Your task to perform on an android device: Add razer huntsman to the cart on ebay.com Image 0: 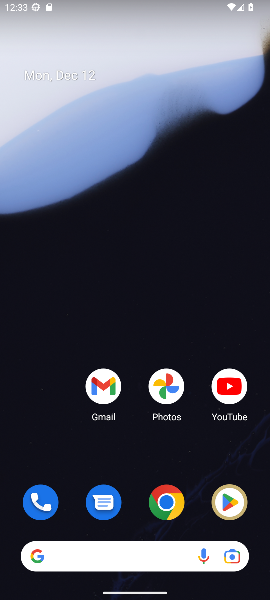
Step 0: click (166, 503)
Your task to perform on an android device: Add razer huntsman to the cart on ebay.com Image 1: 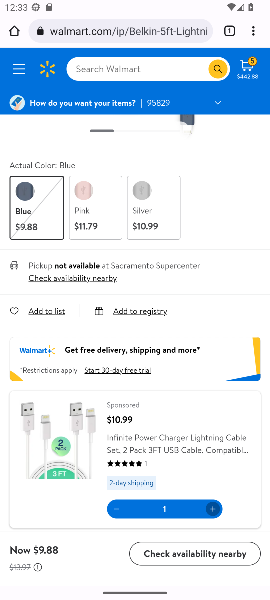
Step 1: click (150, 80)
Your task to perform on an android device: Add razer huntsman to the cart on ebay.com Image 2: 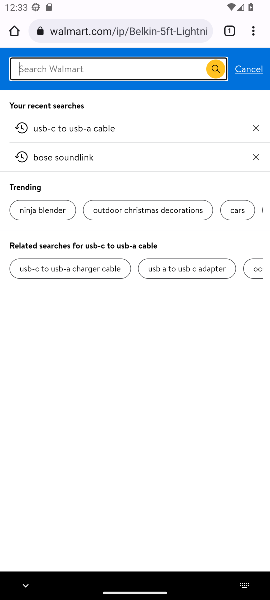
Step 2: type "razer huntsman"
Your task to perform on an android device: Add razer huntsman to the cart on ebay.com Image 3: 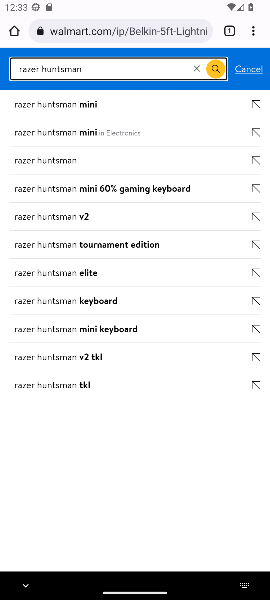
Step 3: click (88, 158)
Your task to perform on an android device: Add razer huntsman to the cart on ebay.com Image 4: 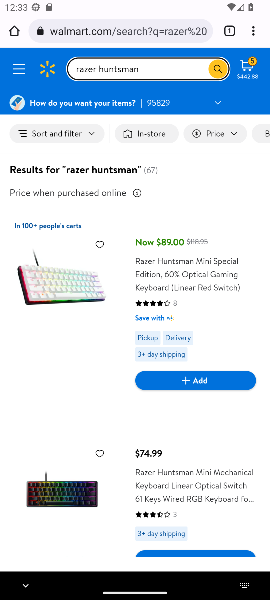
Step 4: click (189, 379)
Your task to perform on an android device: Add razer huntsman to the cart on ebay.com Image 5: 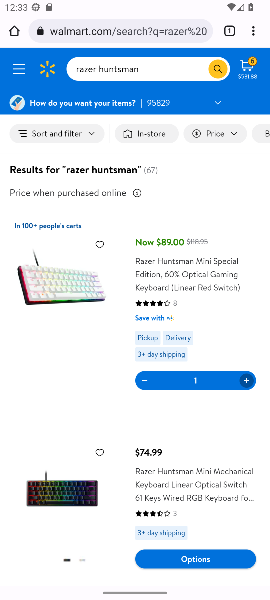
Step 5: task complete